Your task to perform on an android device: turn on airplane mode Image 0: 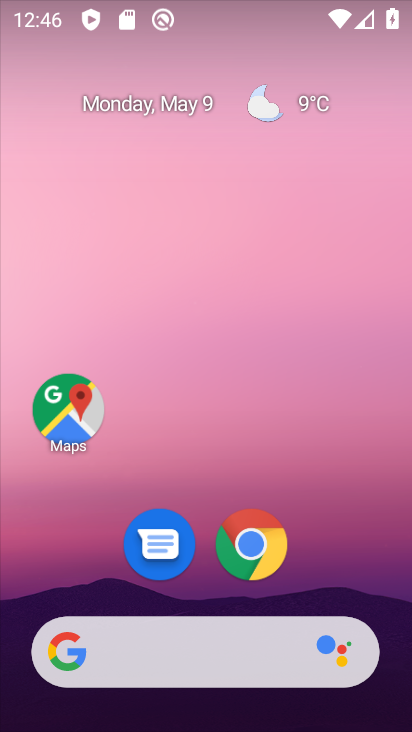
Step 0: drag from (383, 18) to (293, 521)
Your task to perform on an android device: turn on airplane mode Image 1: 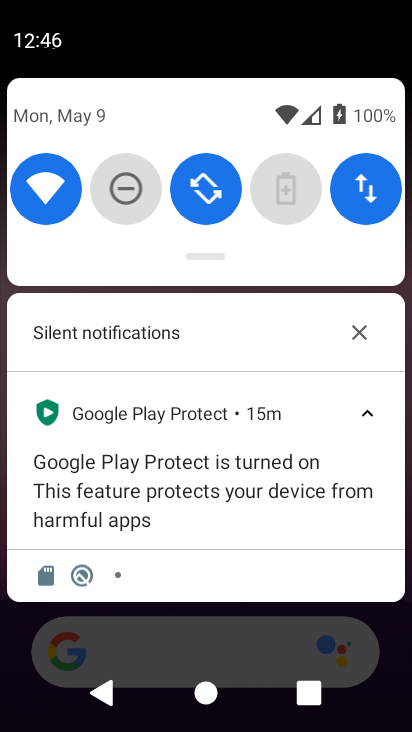
Step 1: drag from (248, 258) to (217, 600)
Your task to perform on an android device: turn on airplane mode Image 2: 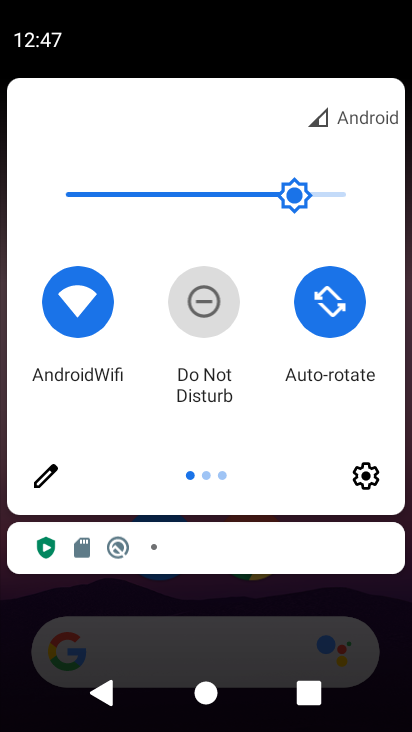
Step 2: drag from (380, 379) to (23, 343)
Your task to perform on an android device: turn on airplane mode Image 3: 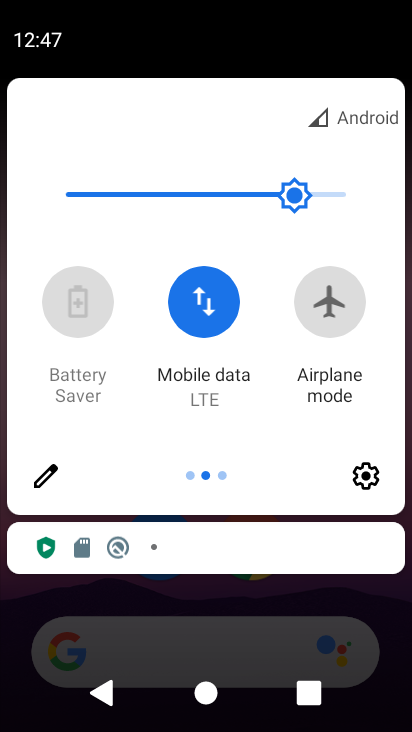
Step 3: click (322, 294)
Your task to perform on an android device: turn on airplane mode Image 4: 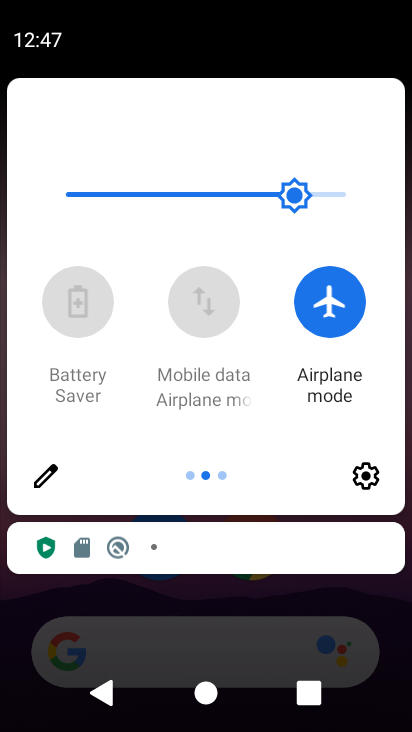
Step 4: task complete